Your task to perform on an android device: turn on the 24-hour format for clock Image 0: 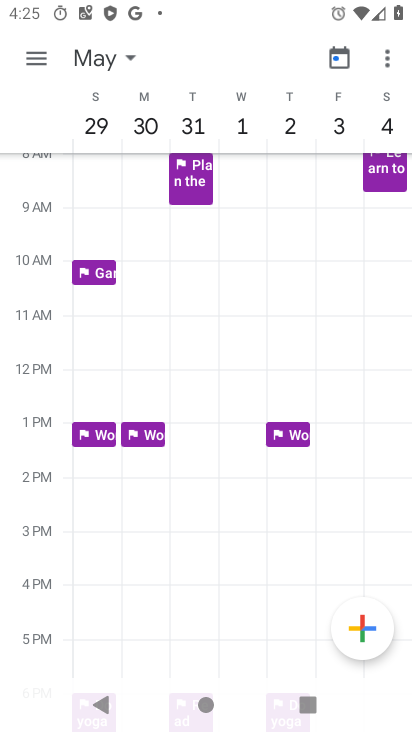
Step 0: press back button
Your task to perform on an android device: turn on the 24-hour format for clock Image 1: 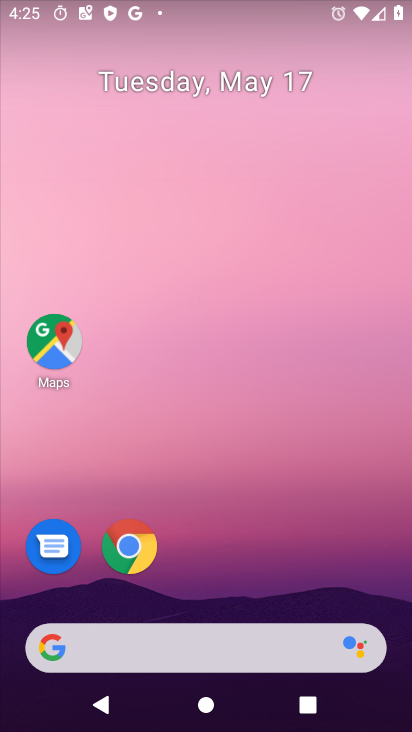
Step 1: drag from (392, 646) to (382, 261)
Your task to perform on an android device: turn on the 24-hour format for clock Image 2: 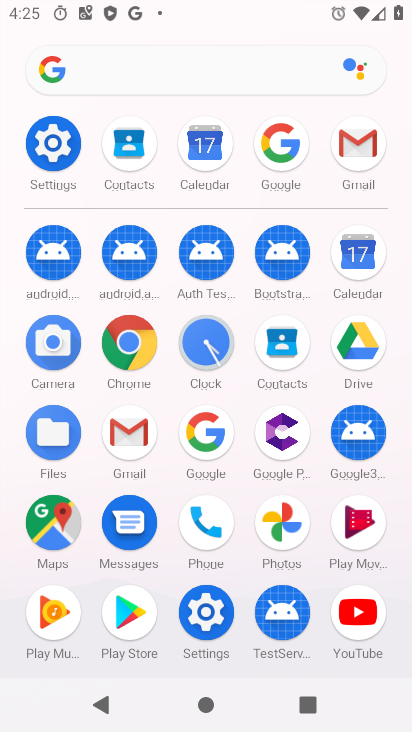
Step 2: click (209, 340)
Your task to perform on an android device: turn on the 24-hour format for clock Image 3: 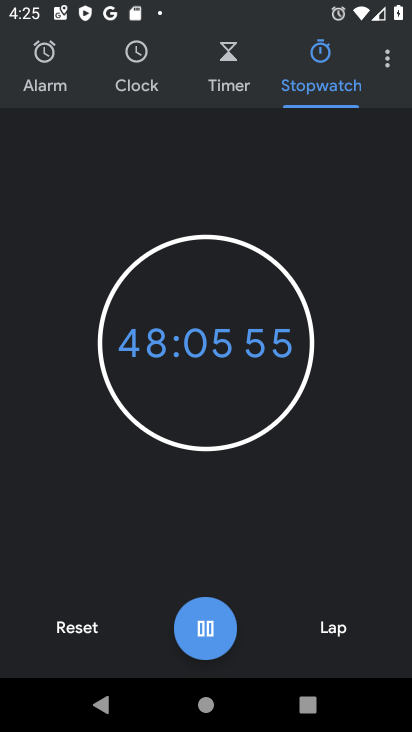
Step 3: click (389, 48)
Your task to perform on an android device: turn on the 24-hour format for clock Image 4: 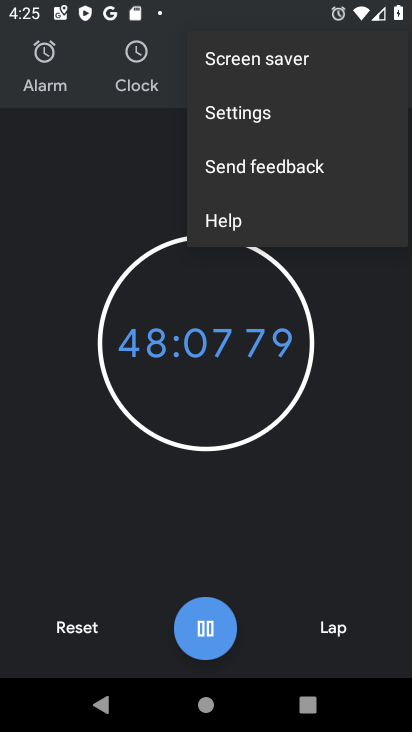
Step 4: click (245, 106)
Your task to perform on an android device: turn on the 24-hour format for clock Image 5: 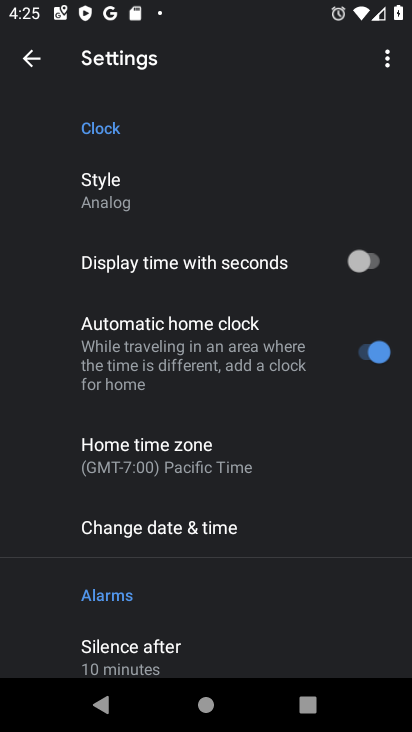
Step 5: click (178, 529)
Your task to perform on an android device: turn on the 24-hour format for clock Image 6: 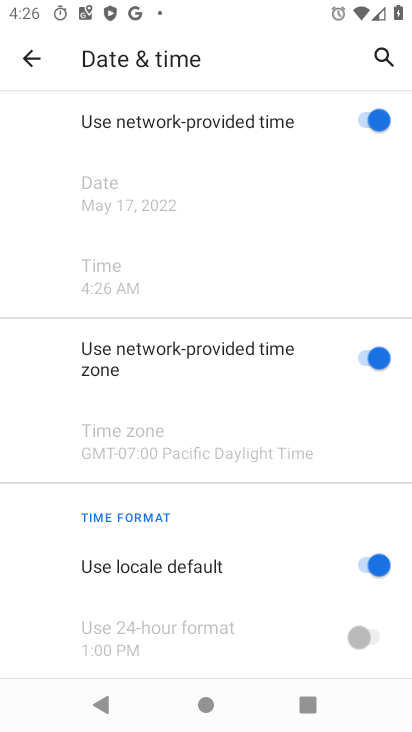
Step 6: drag from (264, 592) to (276, 361)
Your task to perform on an android device: turn on the 24-hour format for clock Image 7: 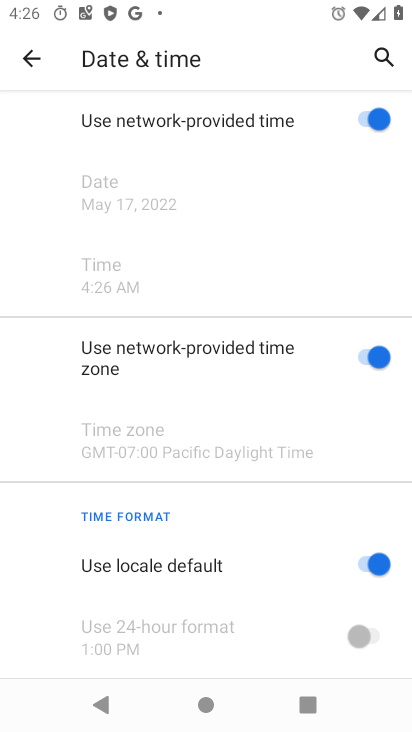
Step 7: click (364, 562)
Your task to perform on an android device: turn on the 24-hour format for clock Image 8: 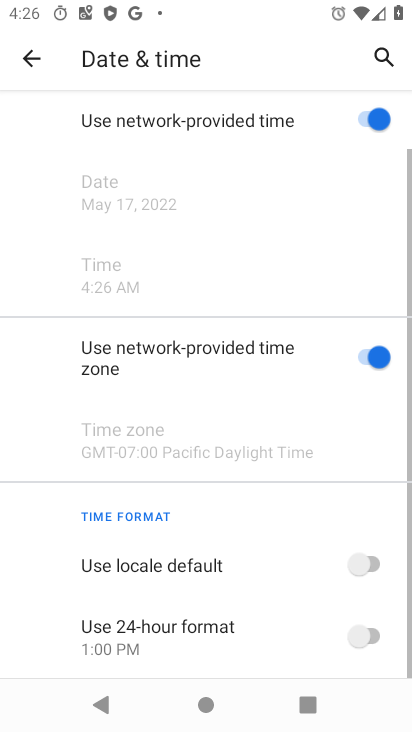
Step 8: click (370, 635)
Your task to perform on an android device: turn on the 24-hour format for clock Image 9: 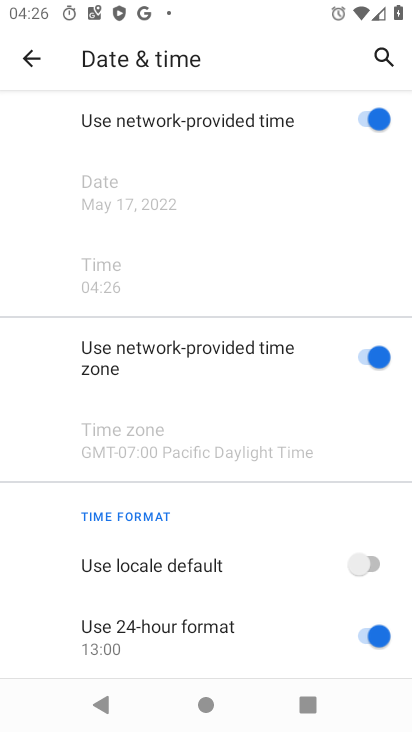
Step 9: task complete